Your task to perform on an android device: toggle sleep mode Image 0: 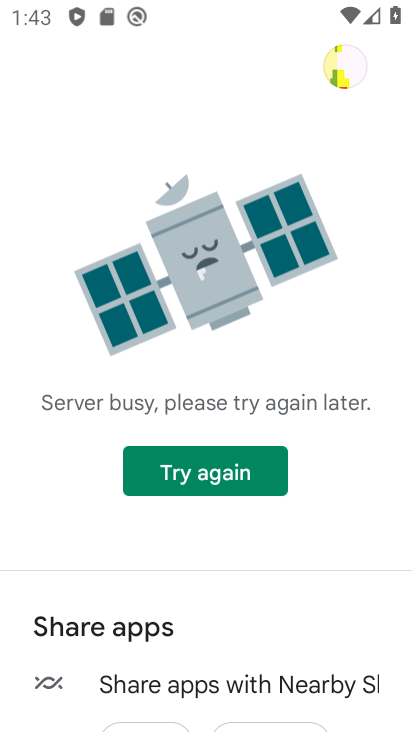
Step 0: task impossible